Your task to perform on an android device: Go to settings Image 0: 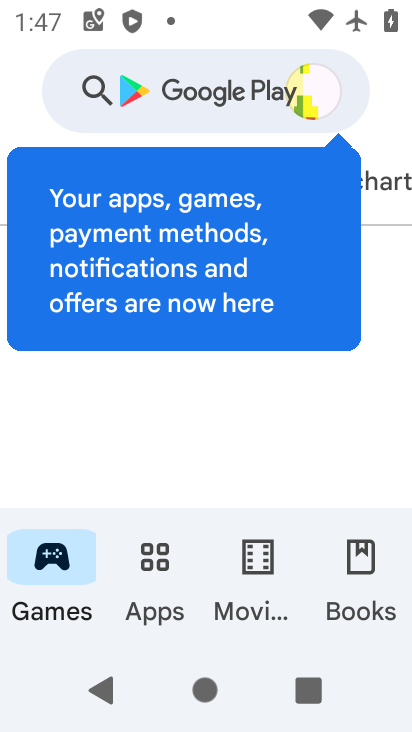
Step 0: press home button
Your task to perform on an android device: Go to settings Image 1: 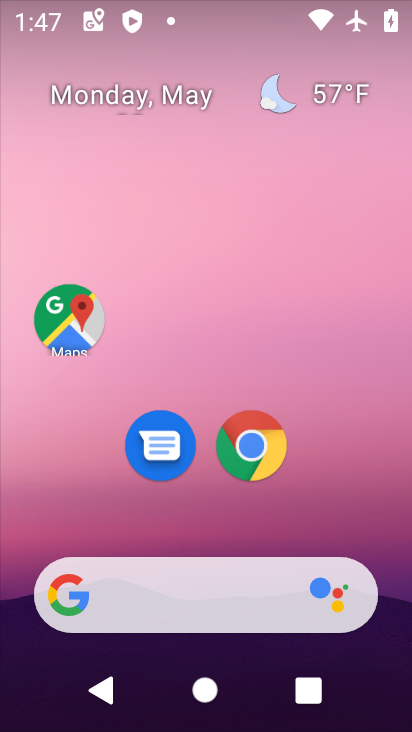
Step 1: drag from (217, 491) to (292, 40)
Your task to perform on an android device: Go to settings Image 2: 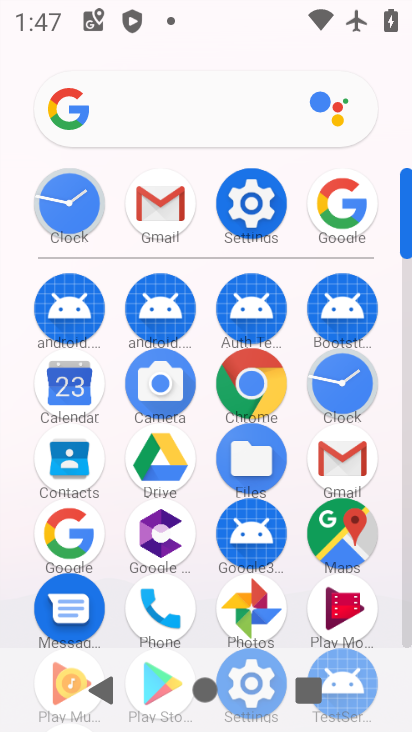
Step 2: click (251, 199)
Your task to perform on an android device: Go to settings Image 3: 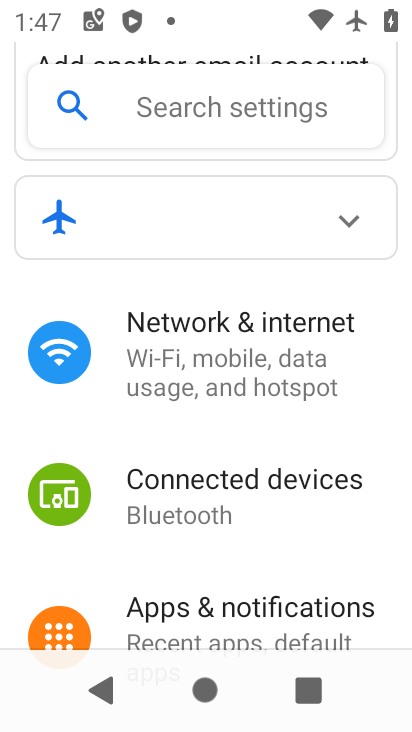
Step 3: task complete